Your task to perform on an android device: turn on data saver in the chrome app Image 0: 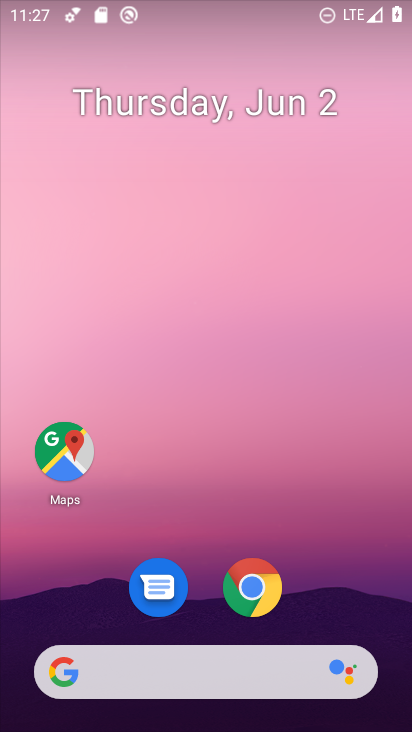
Step 0: click (265, 114)
Your task to perform on an android device: turn on data saver in the chrome app Image 1: 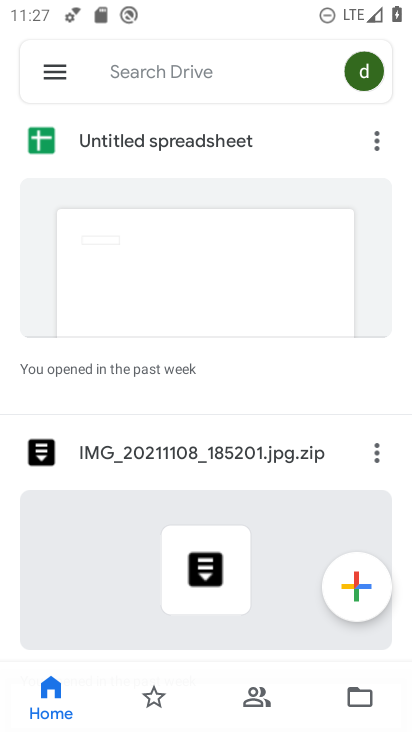
Step 1: press home button
Your task to perform on an android device: turn on data saver in the chrome app Image 2: 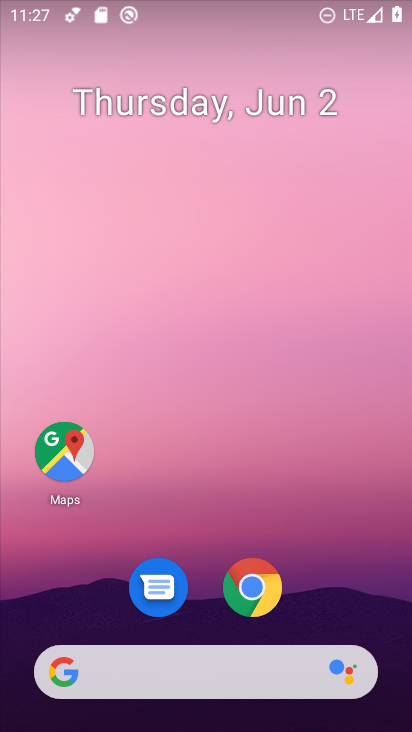
Step 2: click (277, 590)
Your task to perform on an android device: turn on data saver in the chrome app Image 3: 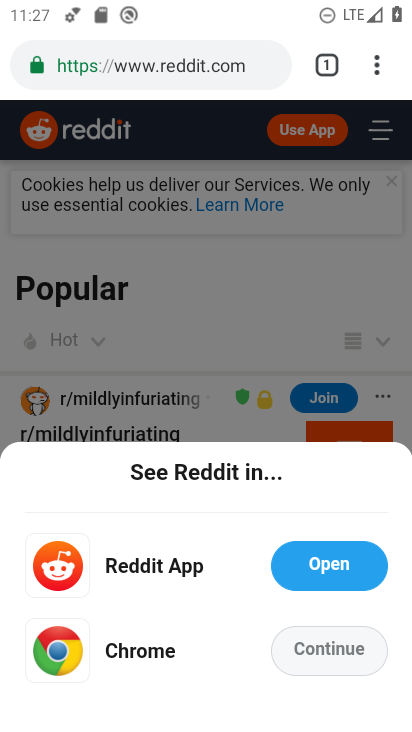
Step 3: click (376, 74)
Your task to perform on an android device: turn on data saver in the chrome app Image 4: 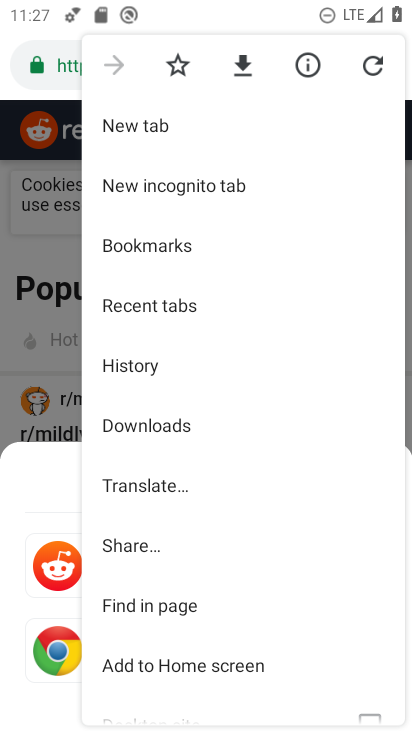
Step 4: drag from (179, 626) to (162, 264)
Your task to perform on an android device: turn on data saver in the chrome app Image 5: 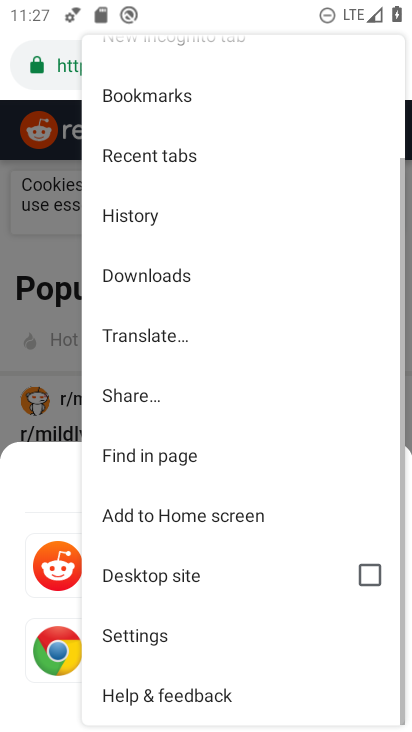
Step 5: click (162, 633)
Your task to perform on an android device: turn on data saver in the chrome app Image 6: 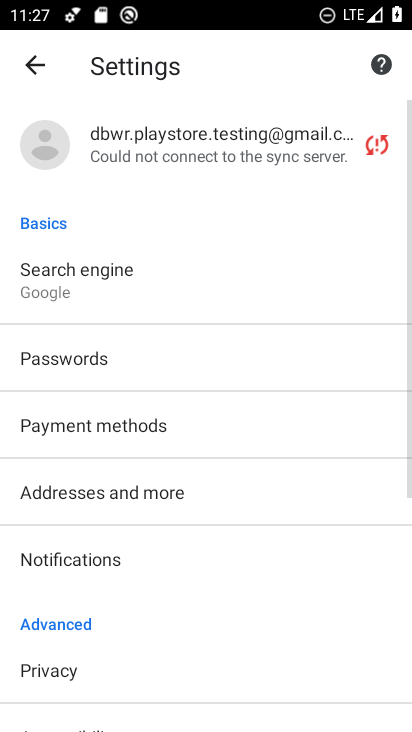
Step 6: drag from (162, 633) to (146, 248)
Your task to perform on an android device: turn on data saver in the chrome app Image 7: 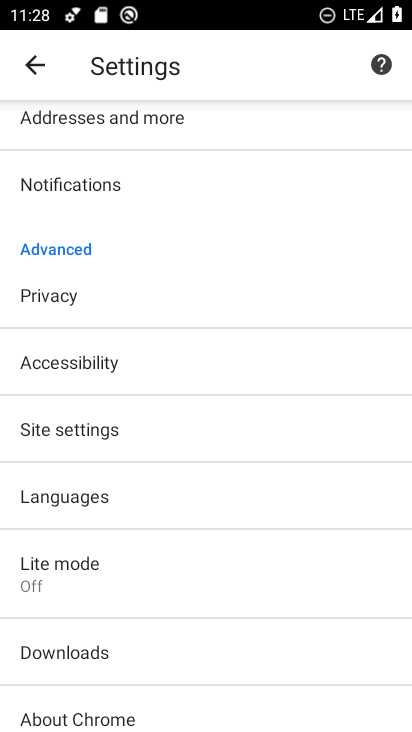
Step 7: click (158, 559)
Your task to perform on an android device: turn on data saver in the chrome app Image 8: 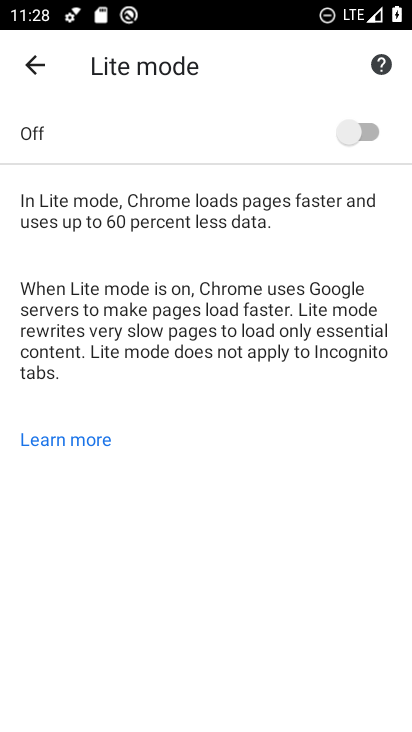
Step 8: click (369, 122)
Your task to perform on an android device: turn on data saver in the chrome app Image 9: 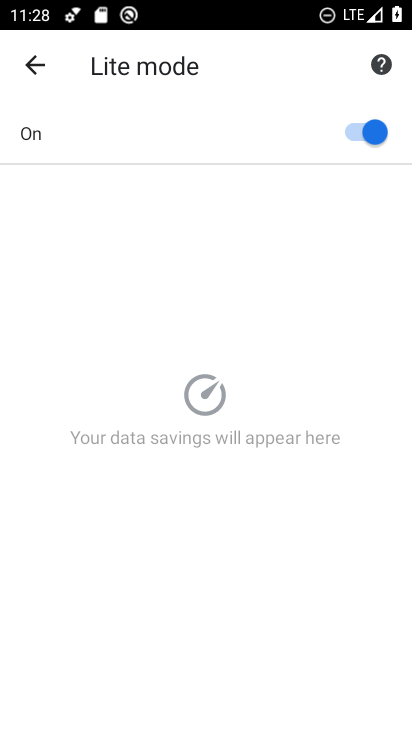
Step 9: task complete